Your task to perform on an android device: toggle location history Image 0: 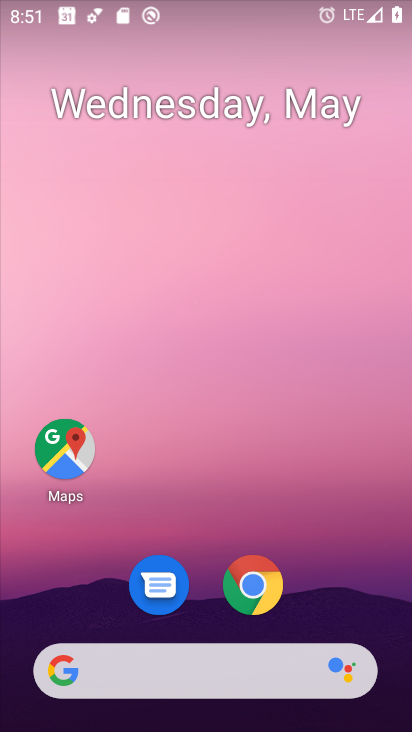
Step 0: drag from (308, 501) to (246, 26)
Your task to perform on an android device: toggle location history Image 1: 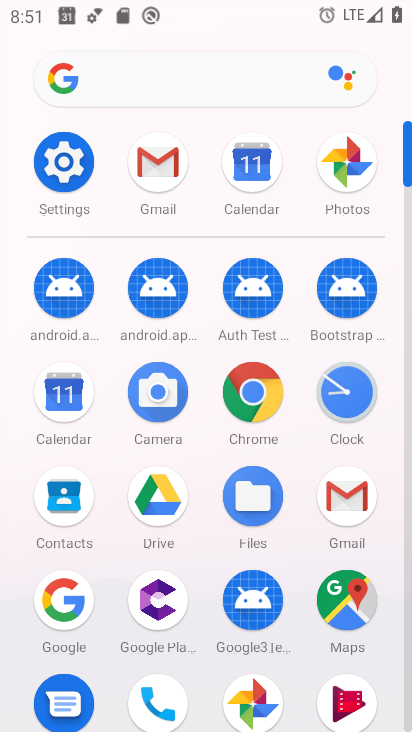
Step 1: click (61, 155)
Your task to perform on an android device: toggle location history Image 2: 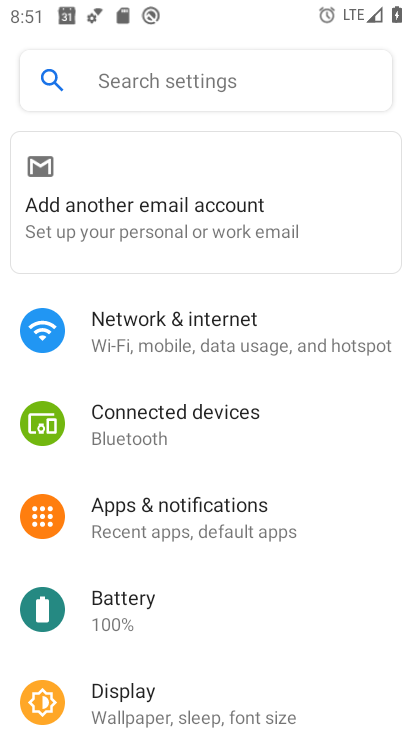
Step 2: drag from (213, 574) to (169, 117)
Your task to perform on an android device: toggle location history Image 3: 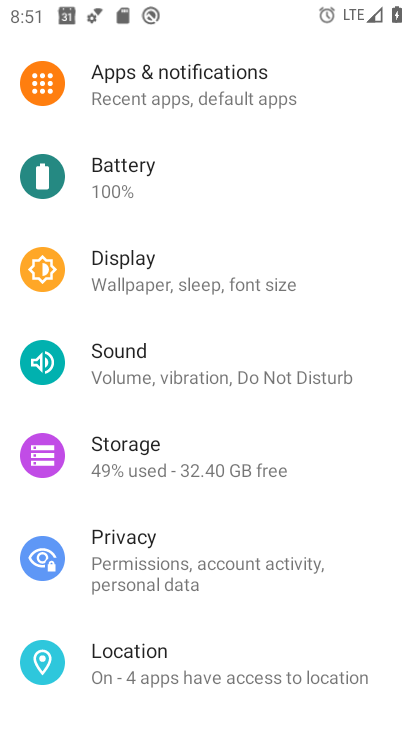
Step 3: click (195, 662)
Your task to perform on an android device: toggle location history Image 4: 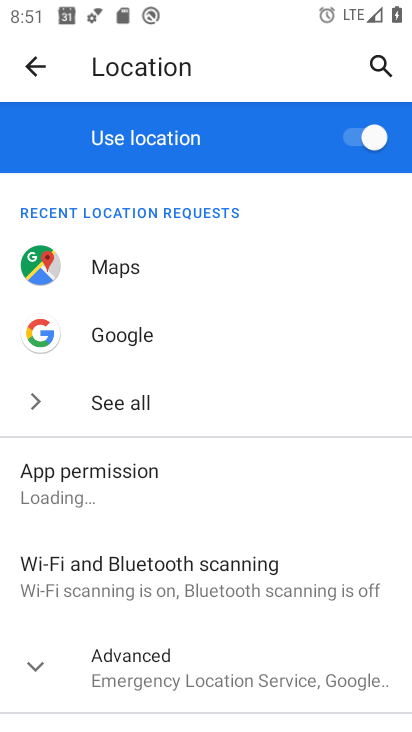
Step 4: click (32, 663)
Your task to perform on an android device: toggle location history Image 5: 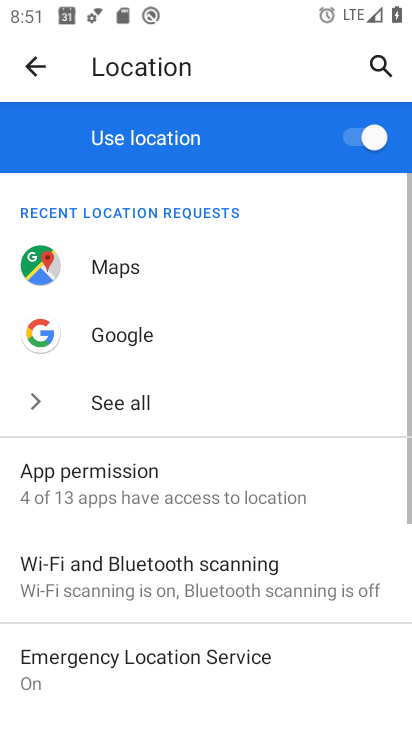
Step 5: drag from (268, 528) to (280, 192)
Your task to perform on an android device: toggle location history Image 6: 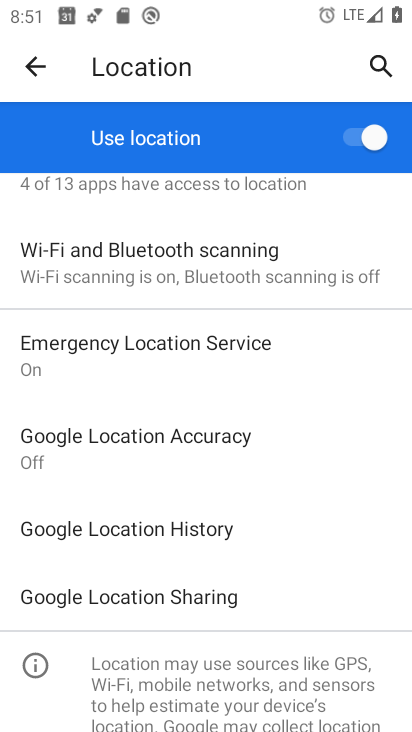
Step 6: click (196, 534)
Your task to perform on an android device: toggle location history Image 7: 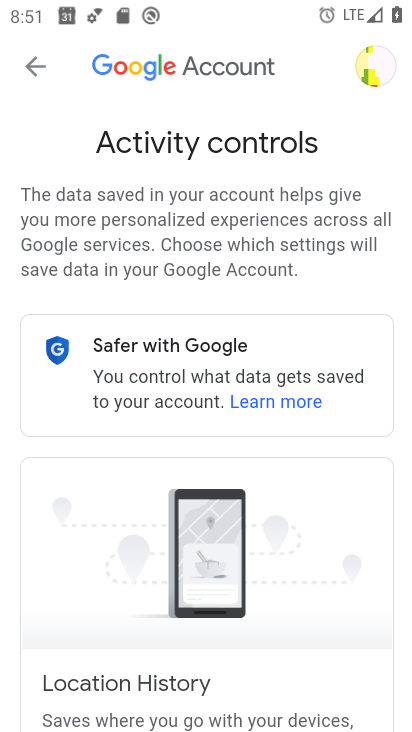
Step 7: drag from (287, 547) to (330, 190)
Your task to perform on an android device: toggle location history Image 8: 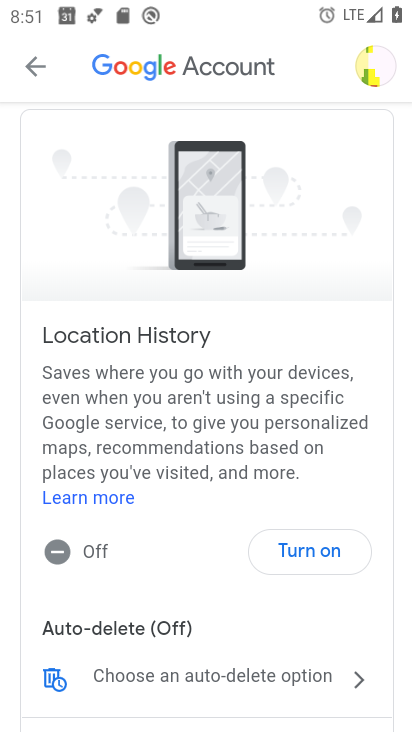
Step 8: click (288, 538)
Your task to perform on an android device: toggle location history Image 9: 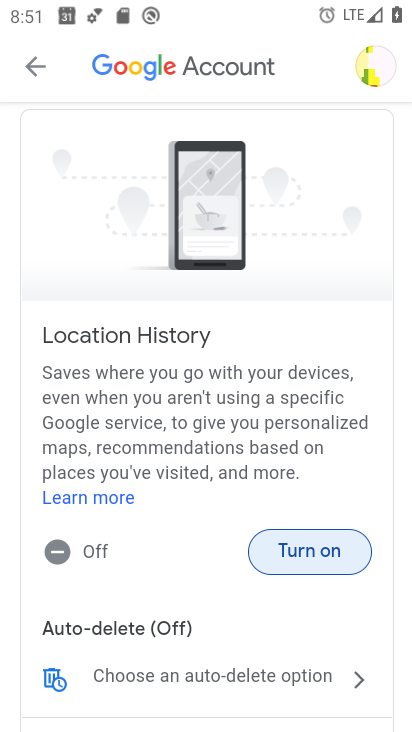
Step 9: click (349, 546)
Your task to perform on an android device: toggle location history Image 10: 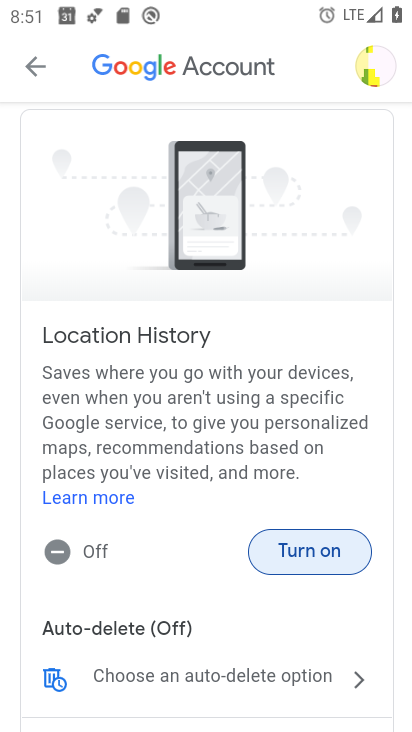
Step 10: click (302, 536)
Your task to perform on an android device: toggle location history Image 11: 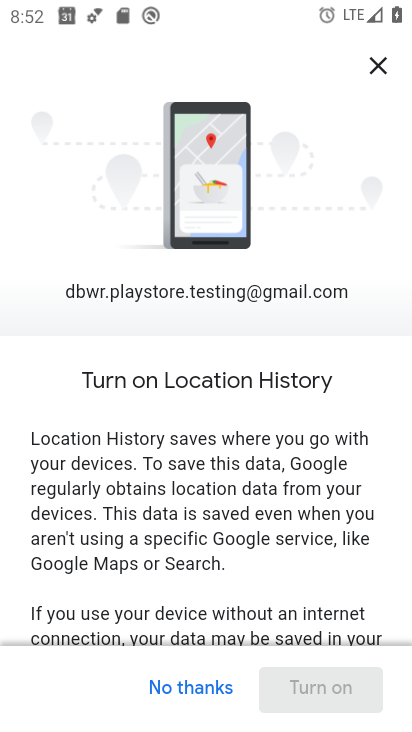
Step 11: drag from (297, 570) to (299, 83)
Your task to perform on an android device: toggle location history Image 12: 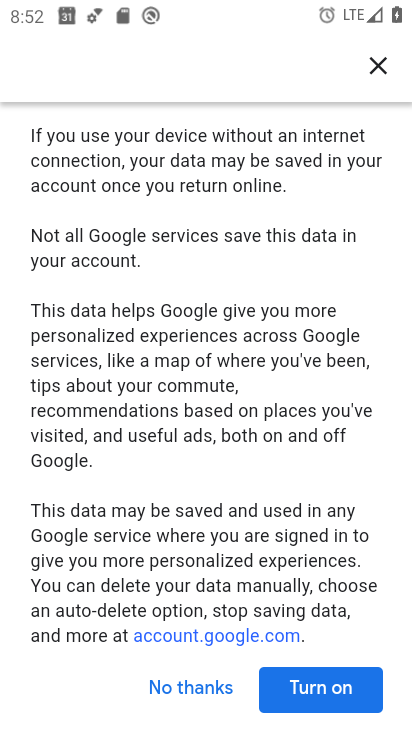
Step 12: click (336, 689)
Your task to perform on an android device: toggle location history Image 13: 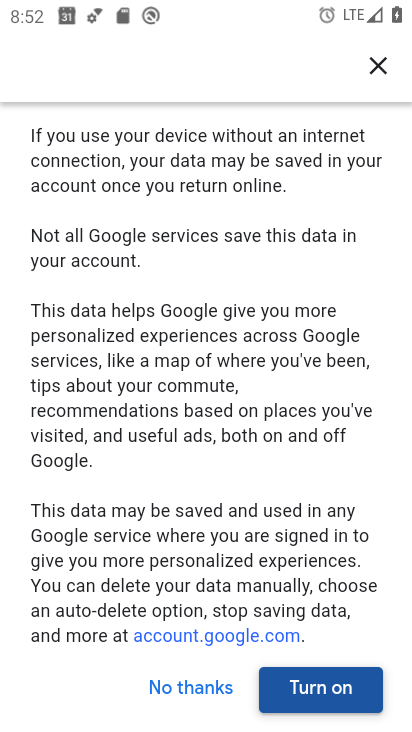
Step 13: click (344, 692)
Your task to perform on an android device: toggle location history Image 14: 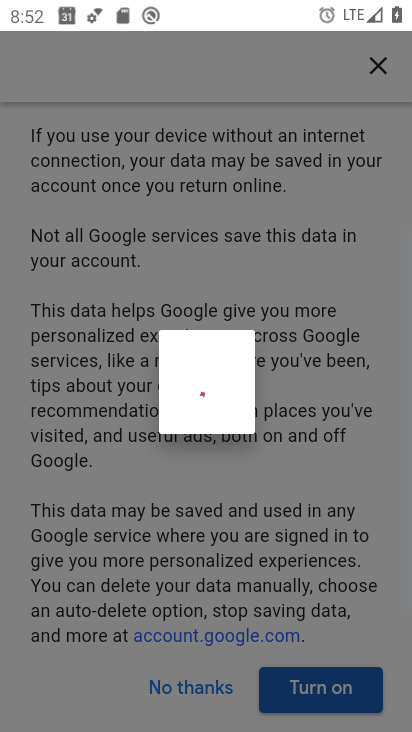
Step 14: click (344, 686)
Your task to perform on an android device: toggle location history Image 15: 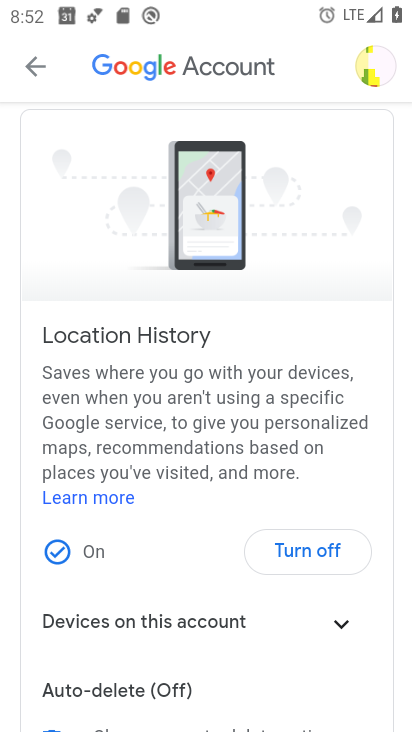
Step 15: click (343, 679)
Your task to perform on an android device: toggle location history Image 16: 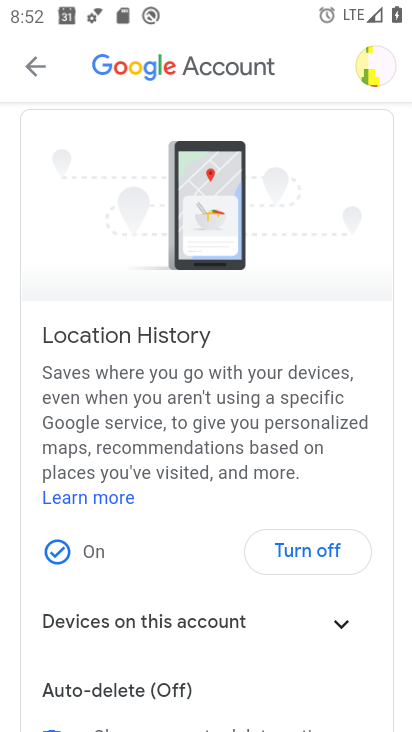
Step 16: task complete